Your task to perform on an android device: turn on showing notifications on the lock screen Image 0: 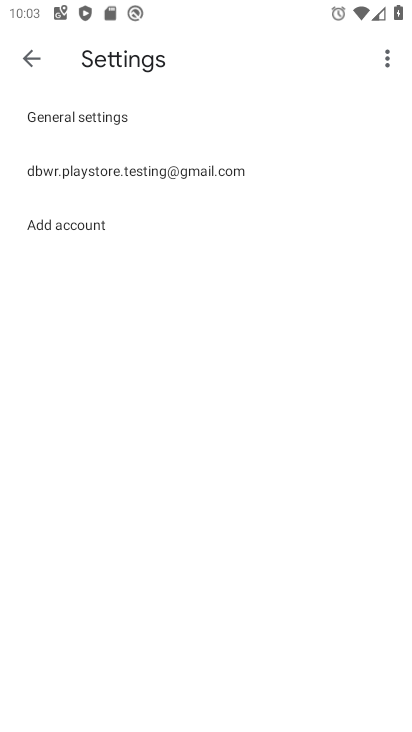
Step 0: press home button
Your task to perform on an android device: turn on showing notifications on the lock screen Image 1: 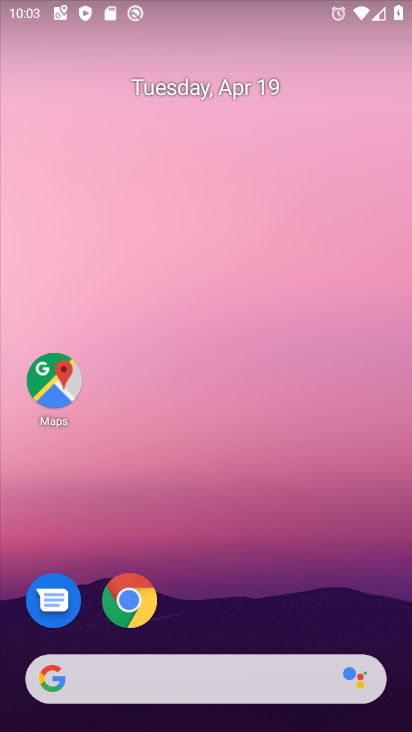
Step 1: drag from (295, 620) to (246, 191)
Your task to perform on an android device: turn on showing notifications on the lock screen Image 2: 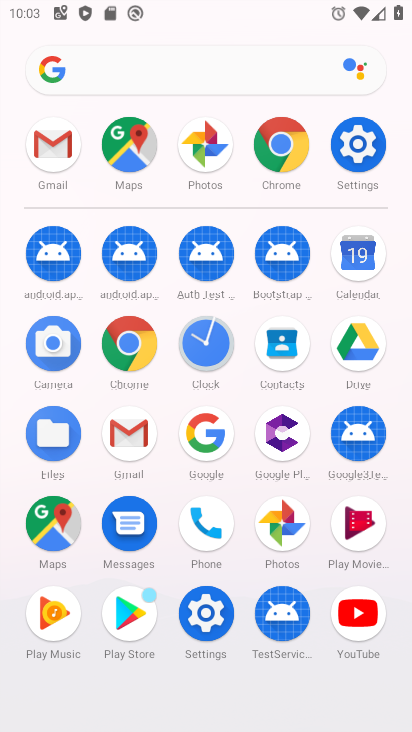
Step 2: click (356, 153)
Your task to perform on an android device: turn on showing notifications on the lock screen Image 3: 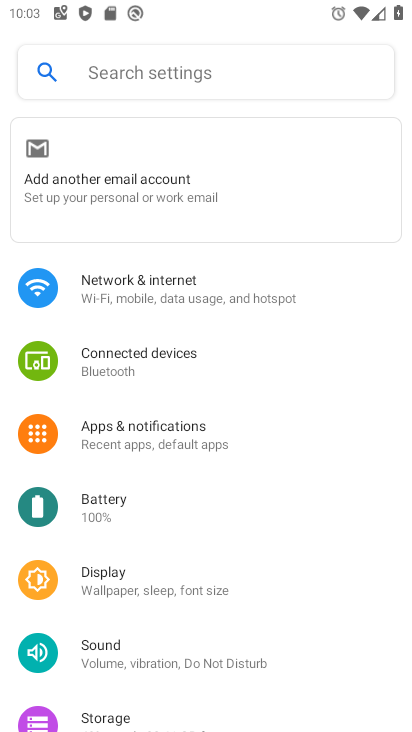
Step 3: click (191, 420)
Your task to perform on an android device: turn on showing notifications on the lock screen Image 4: 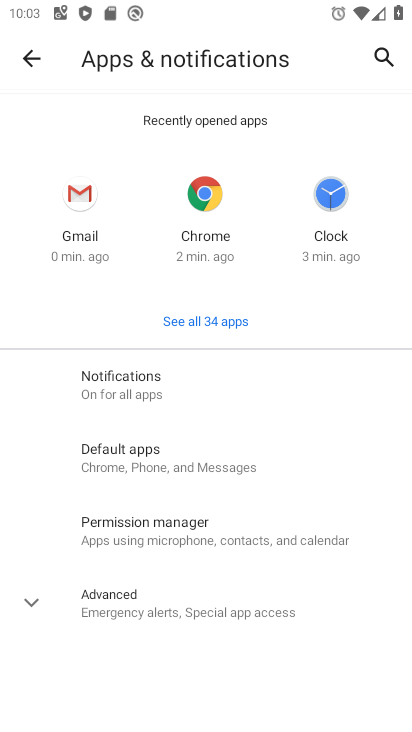
Step 4: click (156, 397)
Your task to perform on an android device: turn on showing notifications on the lock screen Image 5: 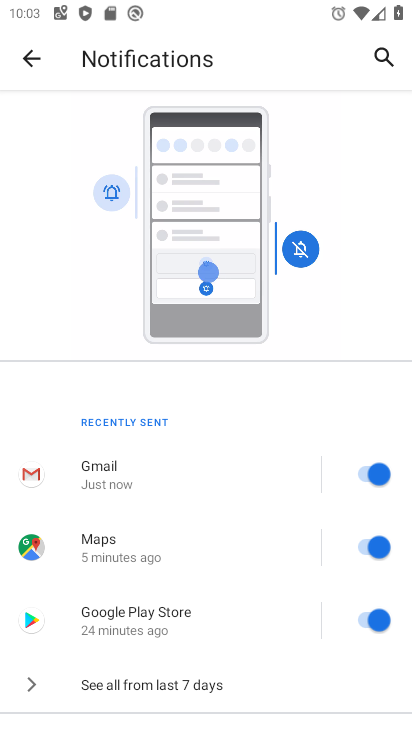
Step 5: drag from (160, 590) to (163, 236)
Your task to perform on an android device: turn on showing notifications on the lock screen Image 6: 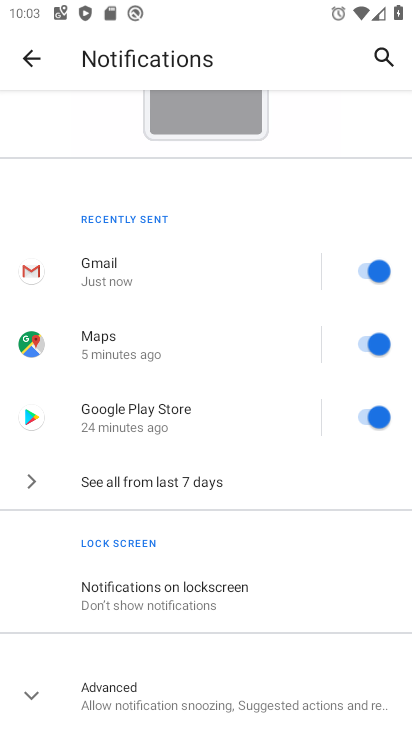
Step 6: click (194, 576)
Your task to perform on an android device: turn on showing notifications on the lock screen Image 7: 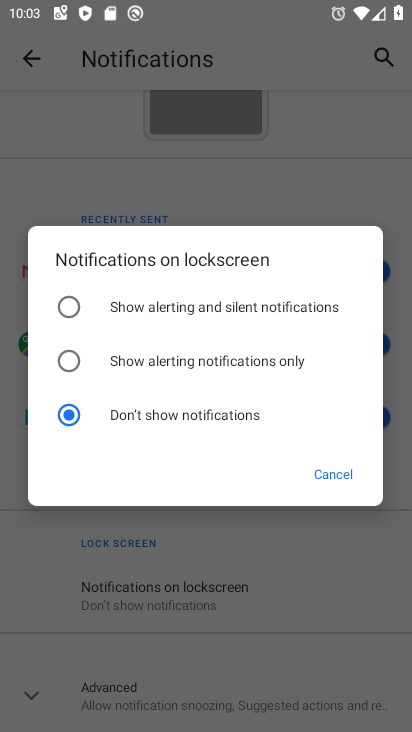
Step 7: click (215, 293)
Your task to perform on an android device: turn on showing notifications on the lock screen Image 8: 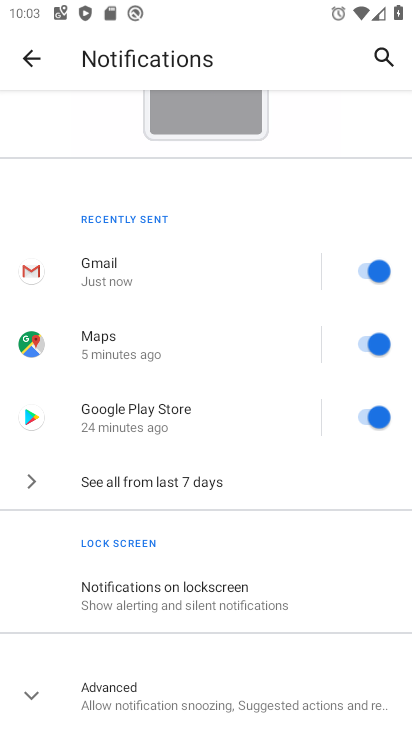
Step 8: task complete